Your task to perform on an android device: What's the weather? Image 0: 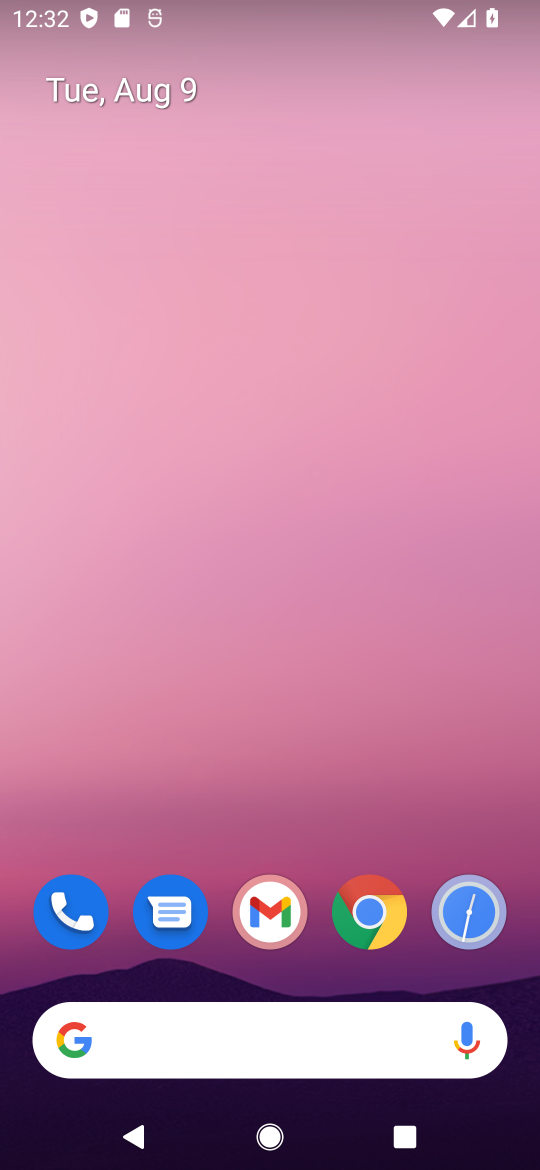
Step 0: drag from (206, 991) to (245, 365)
Your task to perform on an android device: What's the weather? Image 1: 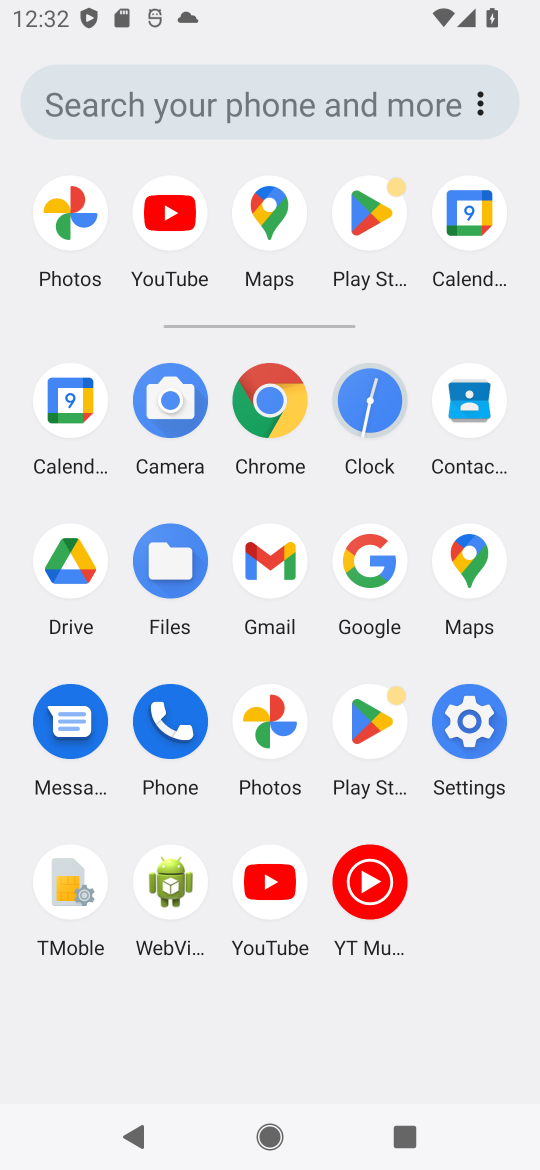
Step 1: click (364, 575)
Your task to perform on an android device: What's the weather? Image 2: 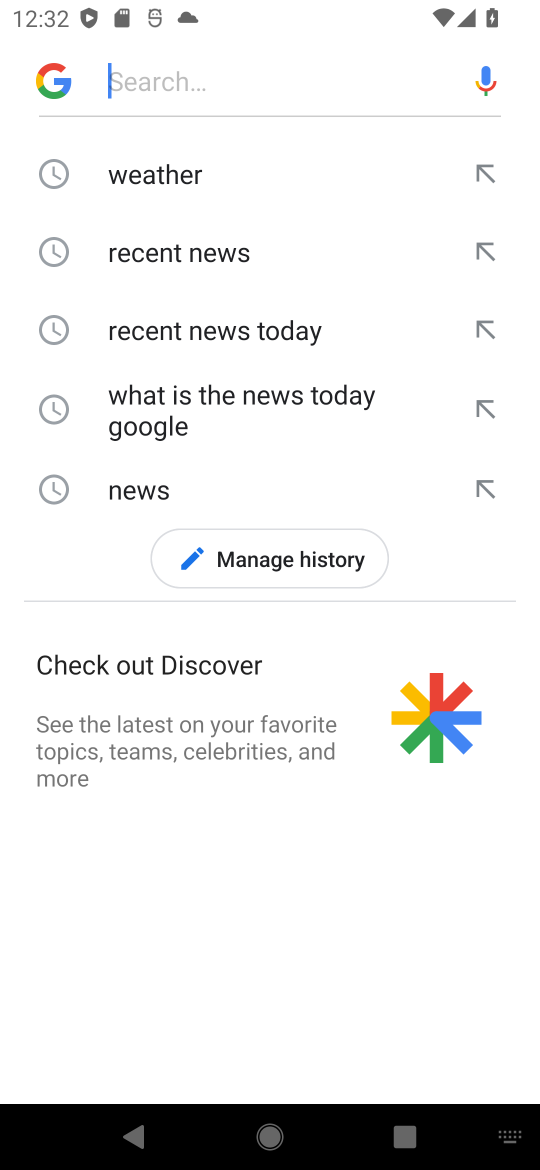
Step 2: click (165, 189)
Your task to perform on an android device: What's the weather? Image 3: 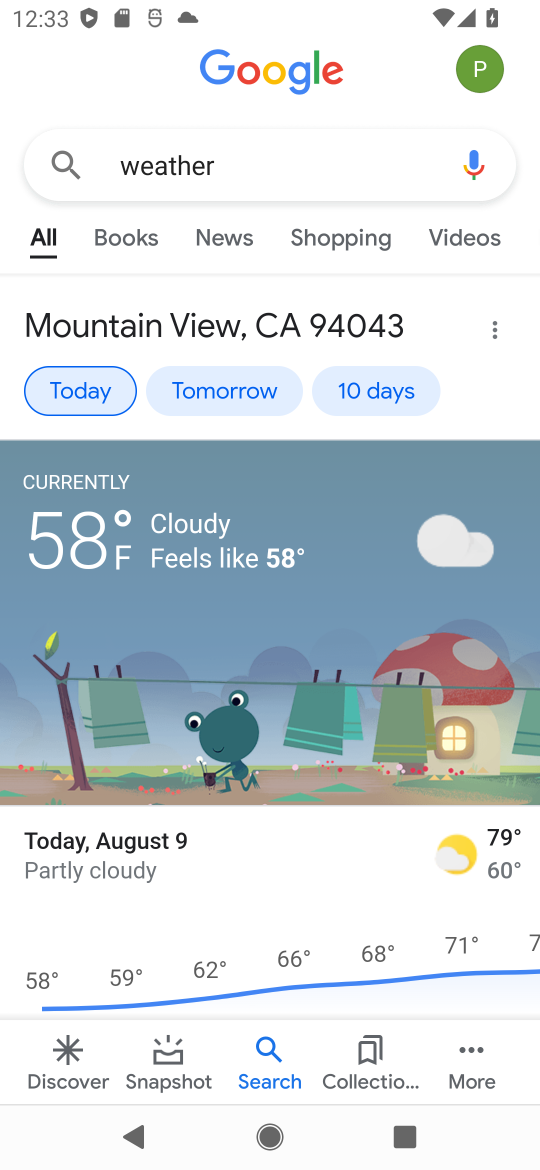
Step 3: task complete